Your task to perform on an android device: choose inbox layout in the gmail app Image 0: 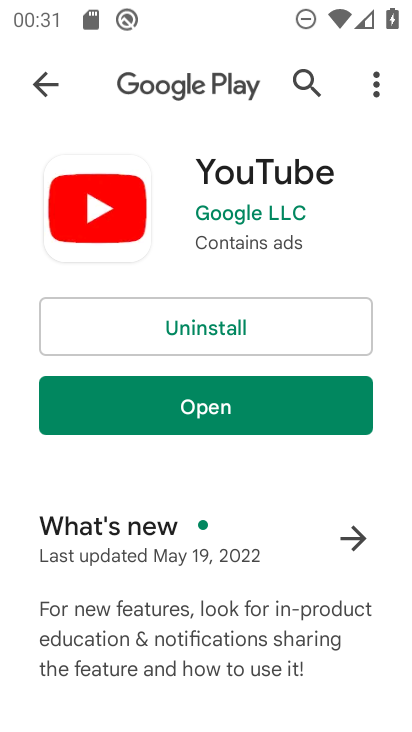
Step 0: press home button
Your task to perform on an android device: choose inbox layout in the gmail app Image 1: 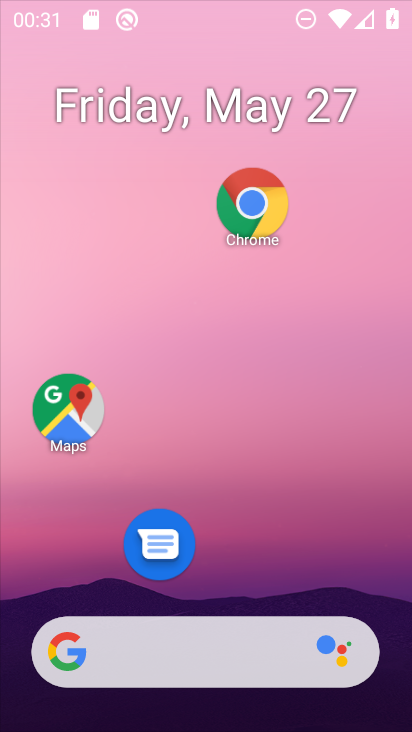
Step 1: drag from (186, 604) to (267, 127)
Your task to perform on an android device: choose inbox layout in the gmail app Image 2: 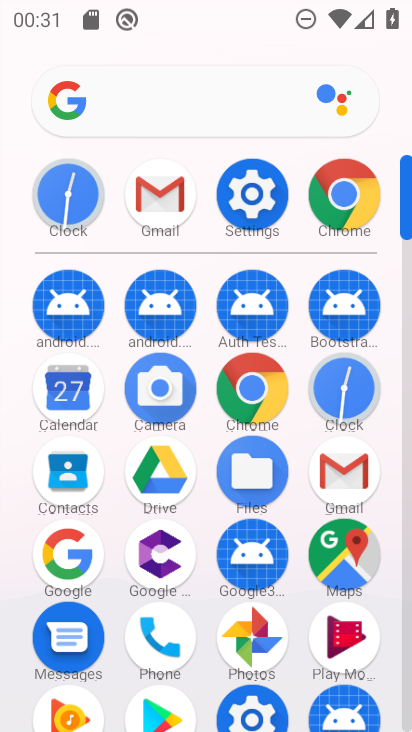
Step 2: click (348, 468)
Your task to perform on an android device: choose inbox layout in the gmail app Image 3: 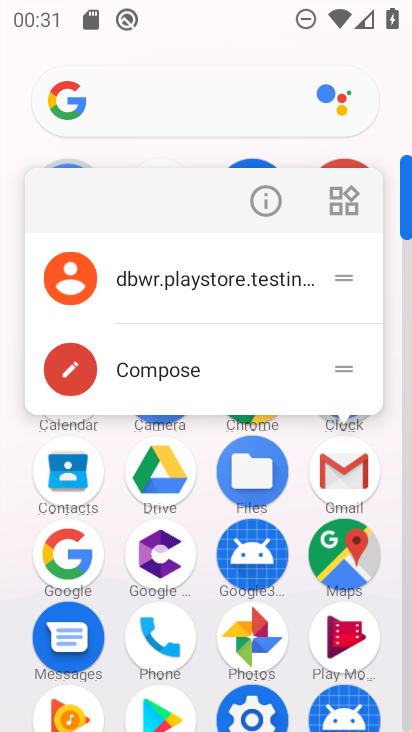
Step 3: click (204, 275)
Your task to perform on an android device: choose inbox layout in the gmail app Image 4: 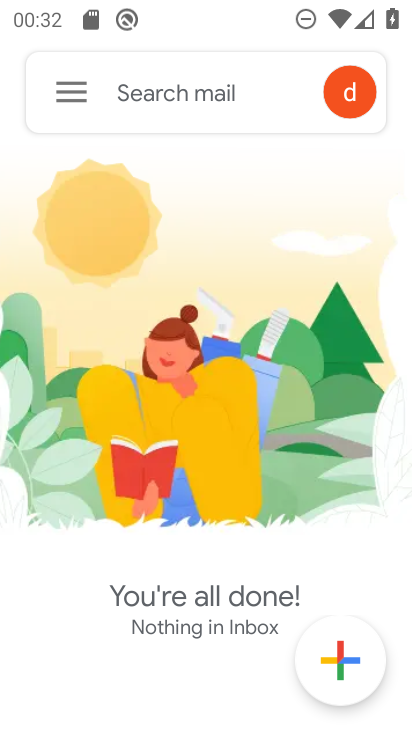
Step 4: click (55, 90)
Your task to perform on an android device: choose inbox layout in the gmail app Image 5: 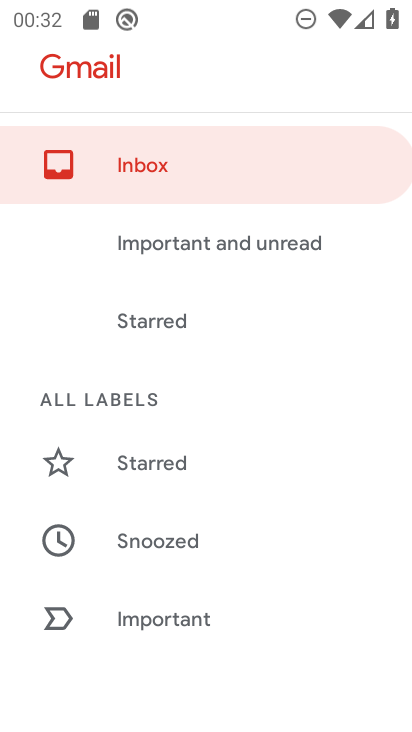
Step 5: drag from (181, 569) to (233, 245)
Your task to perform on an android device: choose inbox layout in the gmail app Image 6: 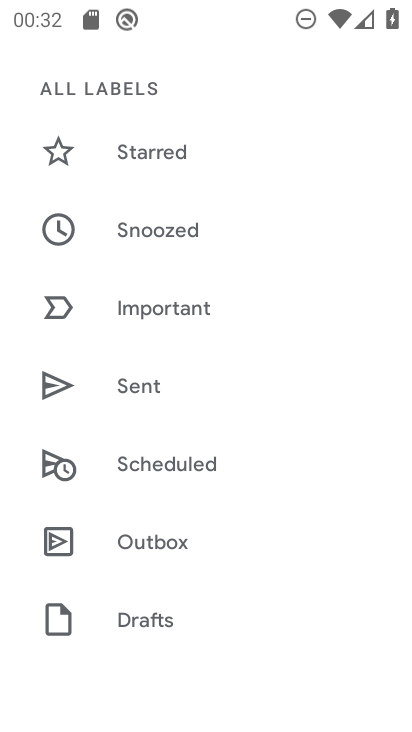
Step 6: drag from (171, 526) to (165, 177)
Your task to perform on an android device: choose inbox layout in the gmail app Image 7: 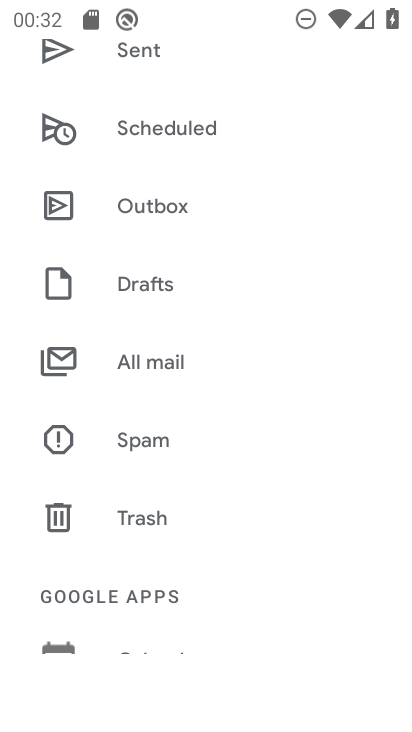
Step 7: drag from (161, 552) to (234, 235)
Your task to perform on an android device: choose inbox layout in the gmail app Image 8: 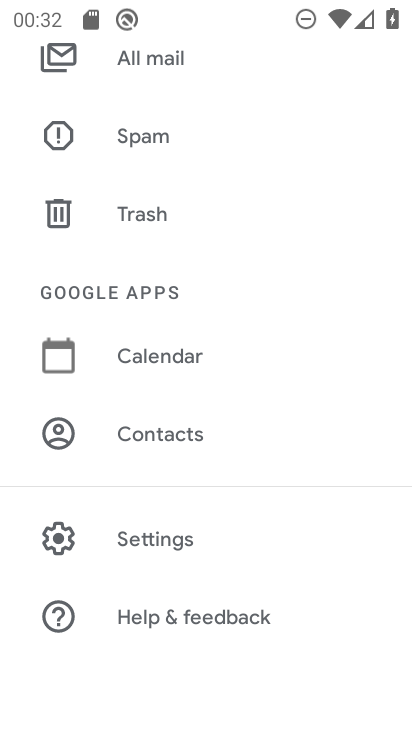
Step 8: drag from (209, 227) to (302, 719)
Your task to perform on an android device: choose inbox layout in the gmail app Image 9: 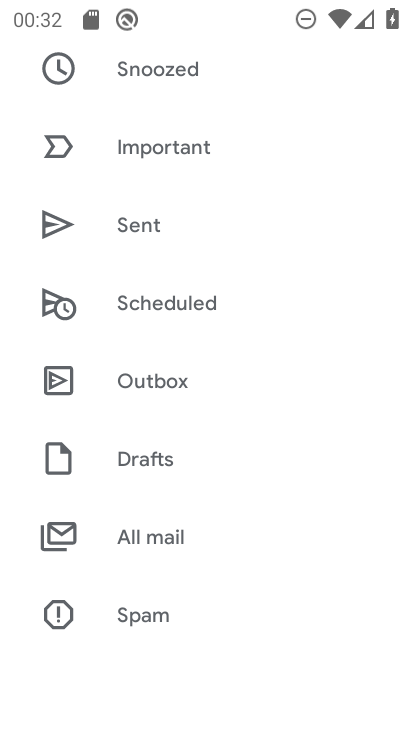
Step 9: drag from (166, 95) to (262, 650)
Your task to perform on an android device: choose inbox layout in the gmail app Image 10: 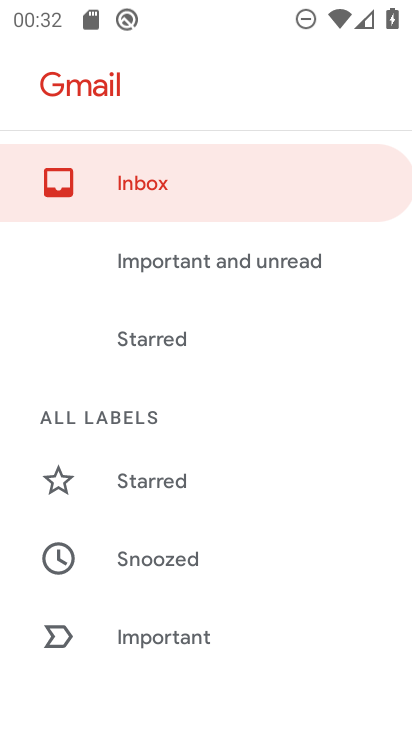
Step 10: click (120, 194)
Your task to perform on an android device: choose inbox layout in the gmail app Image 11: 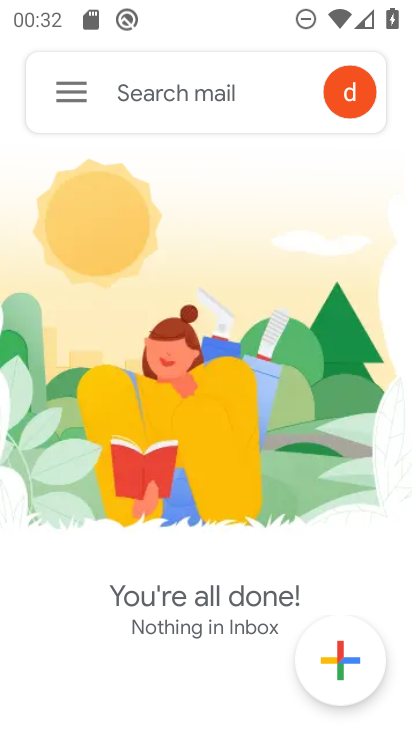
Step 11: task complete